Your task to perform on an android device: Turn on the flashlight Image 0: 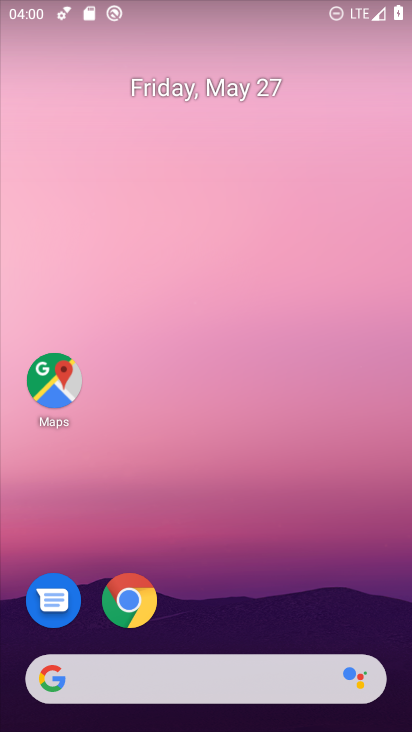
Step 0: drag from (207, 722) to (201, 154)
Your task to perform on an android device: Turn on the flashlight Image 1: 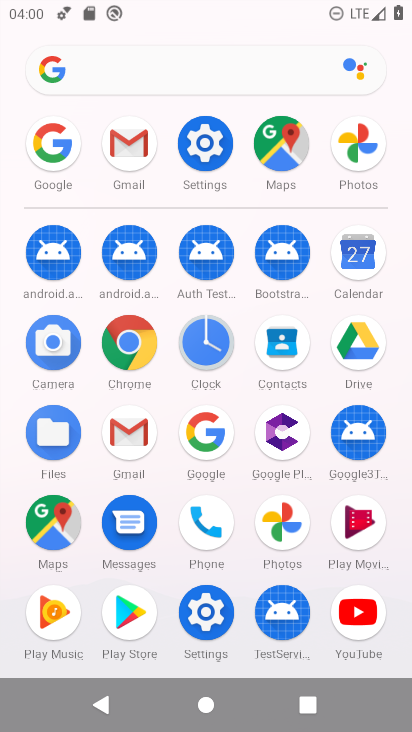
Step 1: click (203, 139)
Your task to perform on an android device: Turn on the flashlight Image 2: 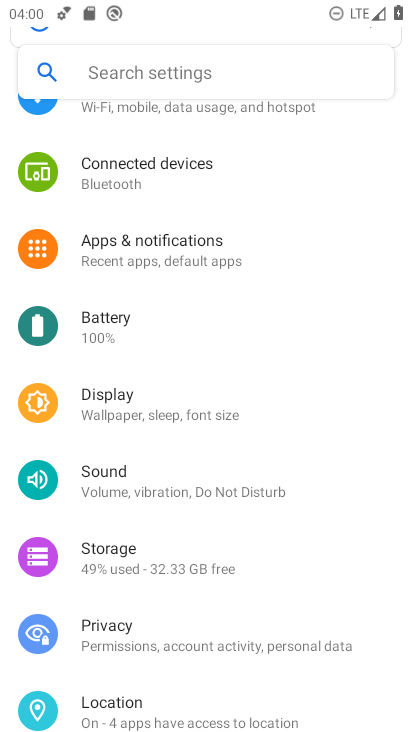
Step 2: drag from (205, 674) to (201, 164)
Your task to perform on an android device: Turn on the flashlight Image 3: 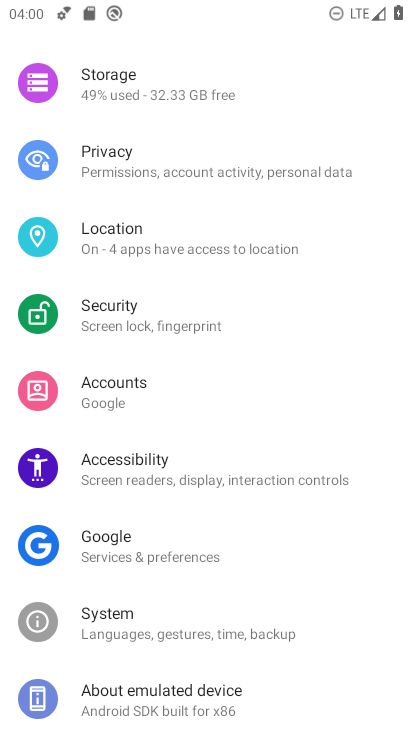
Step 3: drag from (216, 696) to (206, 244)
Your task to perform on an android device: Turn on the flashlight Image 4: 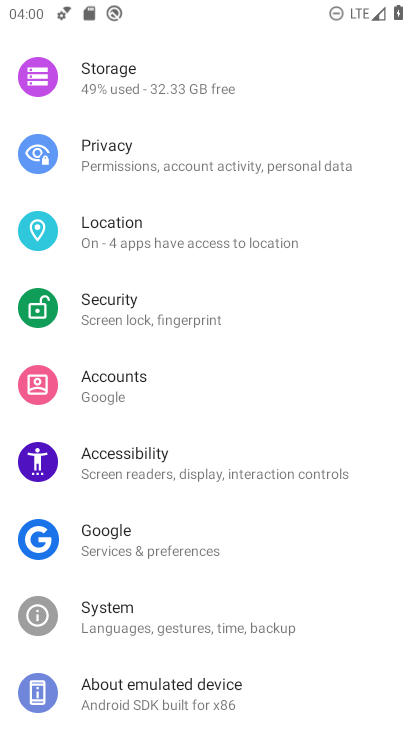
Step 4: drag from (273, 74) to (272, 650)
Your task to perform on an android device: Turn on the flashlight Image 5: 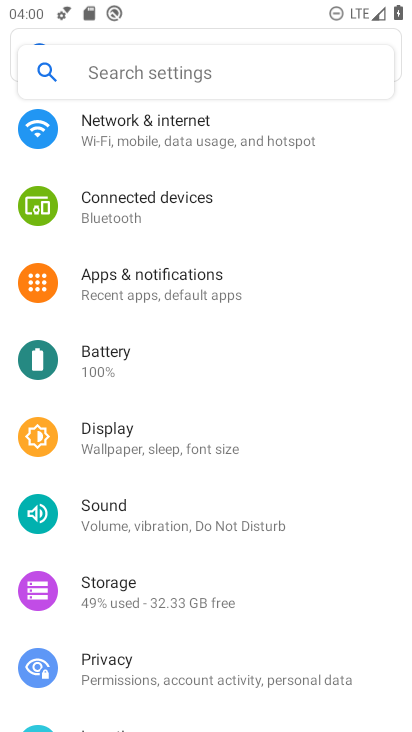
Step 5: drag from (281, 132) to (277, 201)
Your task to perform on an android device: Turn on the flashlight Image 6: 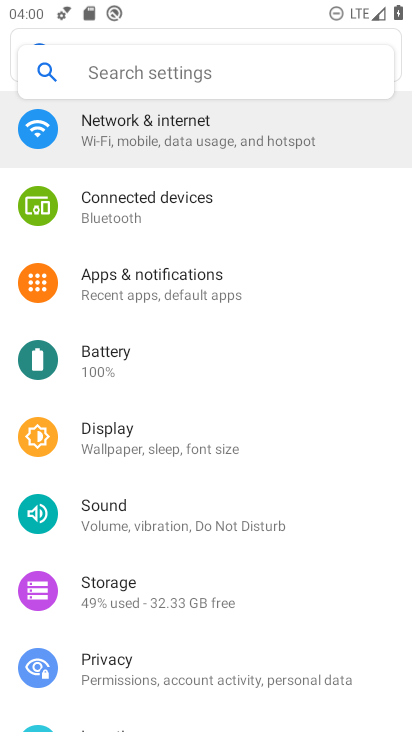
Step 6: click (277, 627)
Your task to perform on an android device: Turn on the flashlight Image 7: 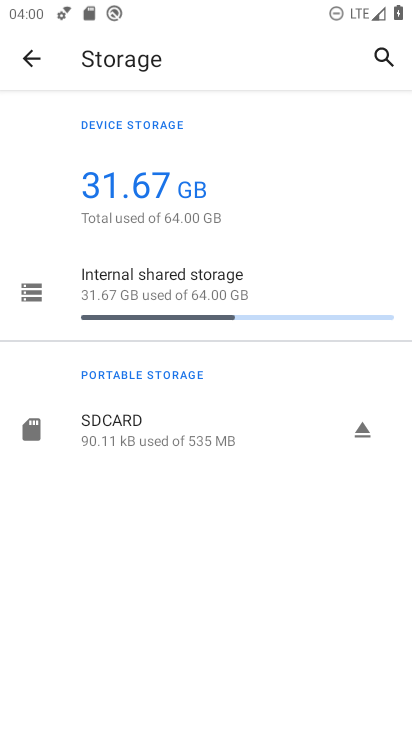
Step 7: click (26, 47)
Your task to perform on an android device: Turn on the flashlight Image 8: 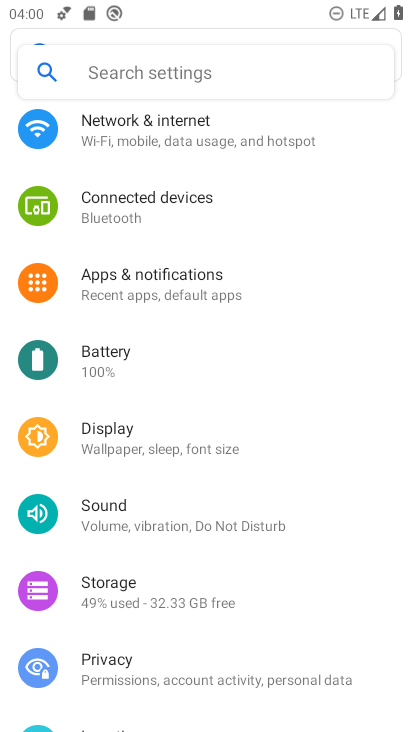
Step 8: task complete